Your task to perform on an android device: turn off translation in the chrome app Image 0: 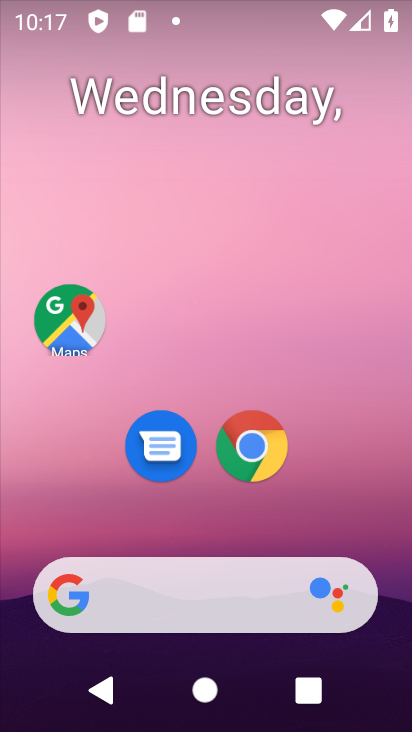
Step 0: click (265, 455)
Your task to perform on an android device: turn off translation in the chrome app Image 1: 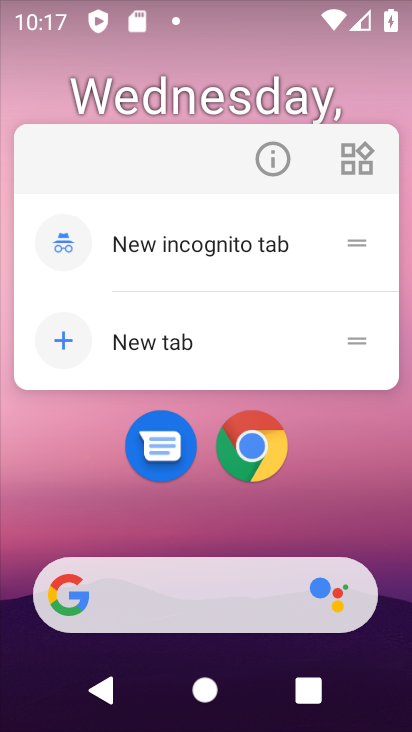
Step 1: click (267, 457)
Your task to perform on an android device: turn off translation in the chrome app Image 2: 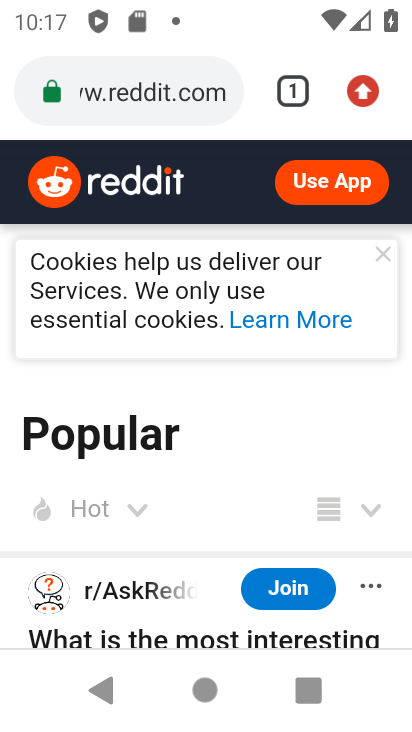
Step 2: drag from (363, 89) to (288, 499)
Your task to perform on an android device: turn off translation in the chrome app Image 3: 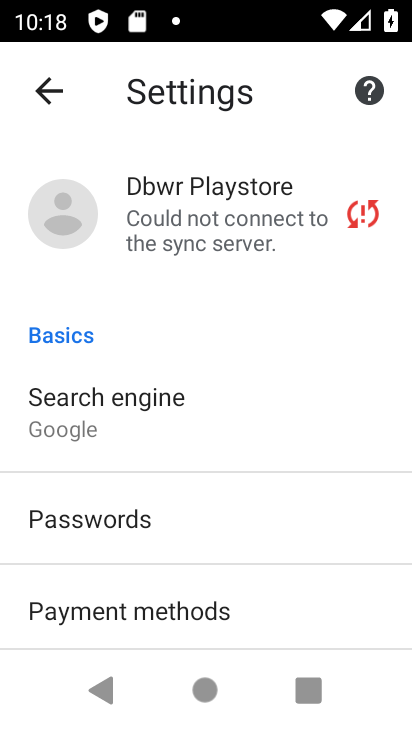
Step 3: drag from (137, 600) to (295, 177)
Your task to perform on an android device: turn off translation in the chrome app Image 4: 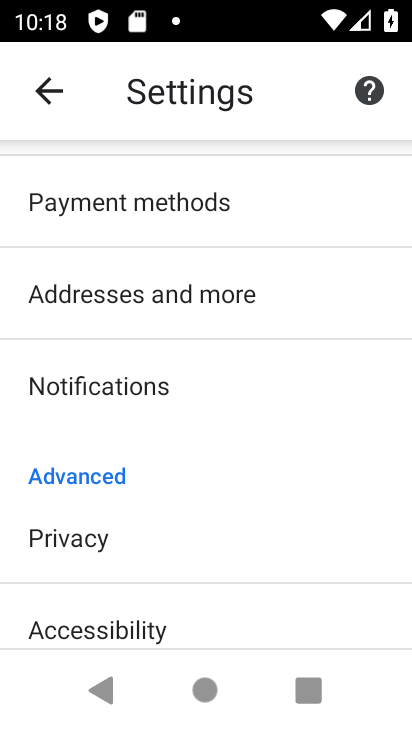
Step 4: drag from (178, 591) to (297, 212)
Your task to perform on an android device: turn off translation in the chrome app Image 5: 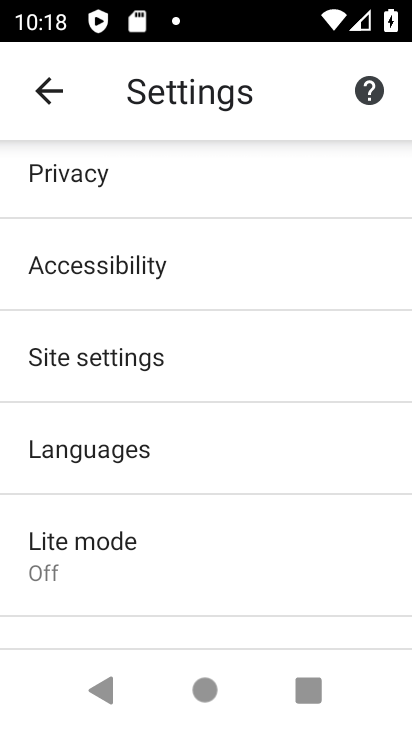
Step 5: drag from (181, 582) to (234, 386)
Your task to perform on an android device: turn off translation in the chrome app Image 6: 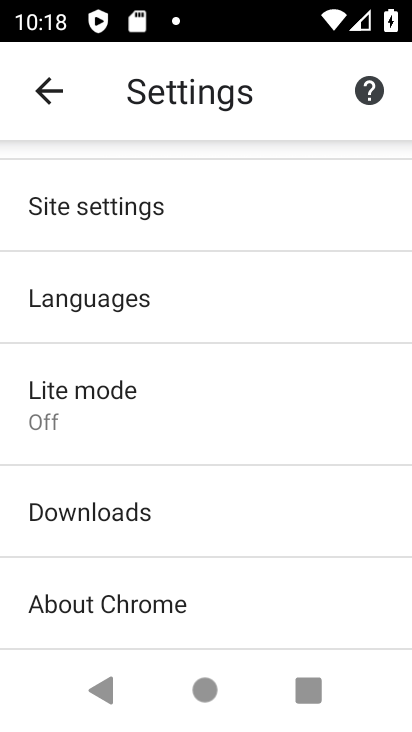
Step 6: click (199, 293)
Your task to perform on an android device: turn off translation in the chrome app Image 7: 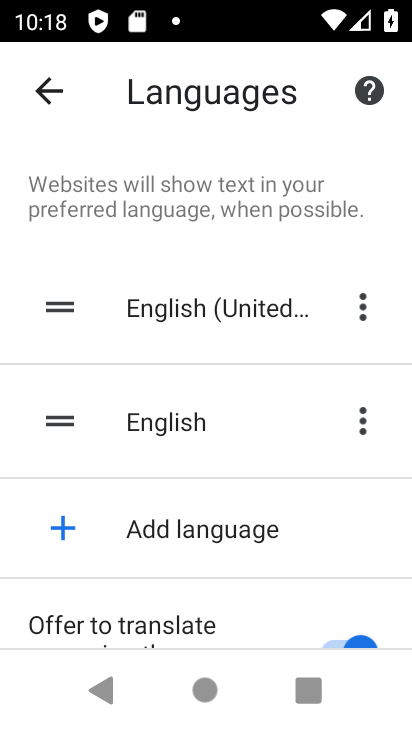
Step 7: drag from (206, 629) to (289, 283)
Your task to perform on an android device: turn off translation in the chrome app Image 8: 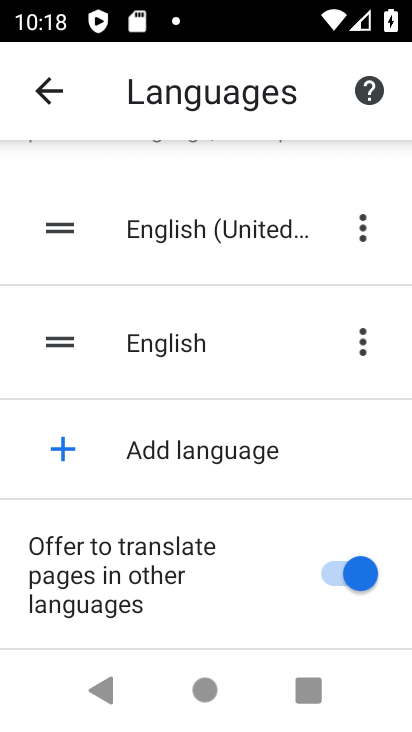
Step 8: click (331, 571)
Your task to perform on an android device: turn off translation in the chrome app Image 9: 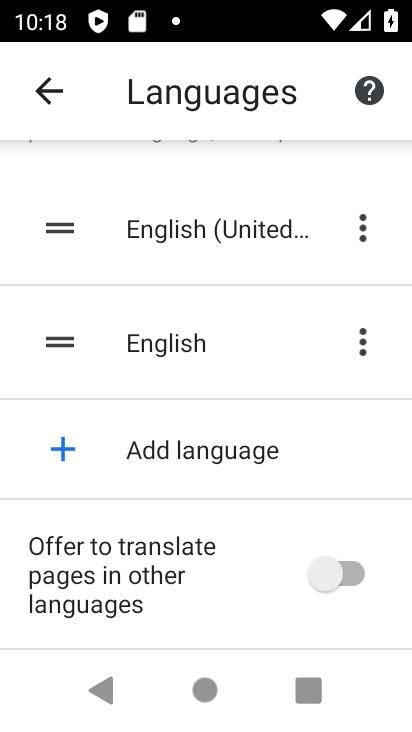
Step 9: task complete